Your task to perform on an android device: check battery use Image 0: 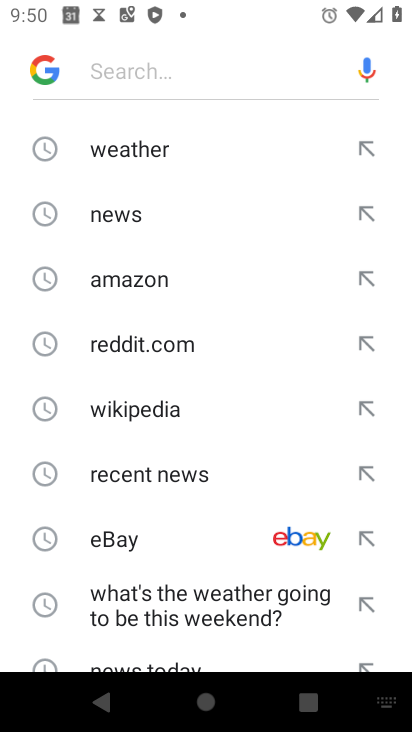
Step 0: press home button
Your task to perform on an android device: check battery use Image 1: 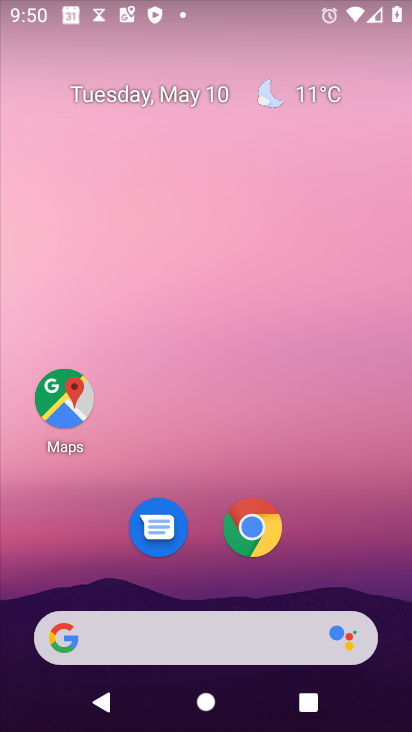
Step 1: drag from (361, 468) to (326, 20)
Your task to perform on an android device: check battery use Image 2: 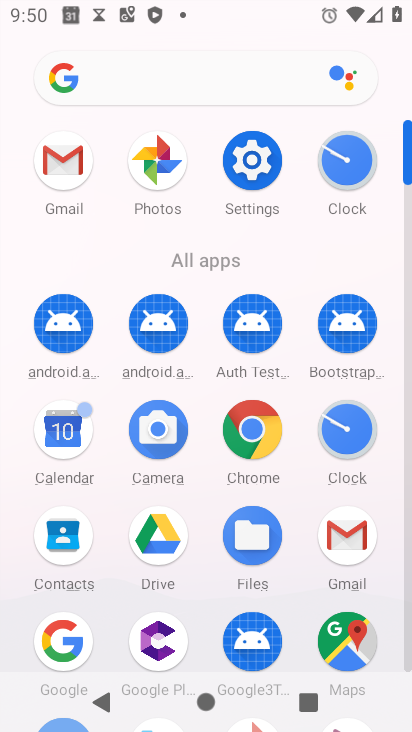
Step 2: click (257, 153)
Your task to perform on an android device: check battery use Image 3: 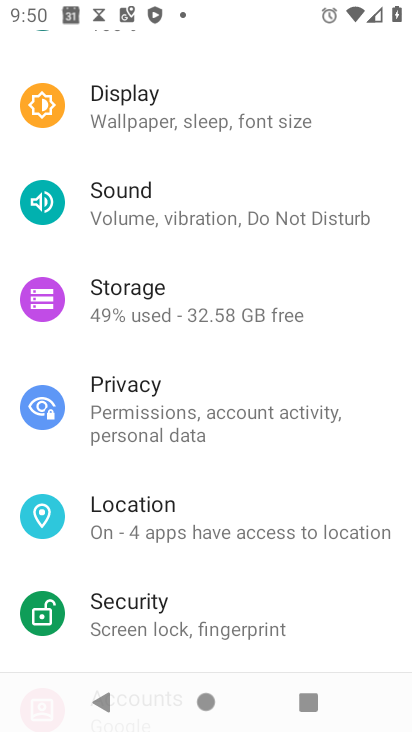
Step 3: drag from (201, 238) to (233, 583)
Your task to perform on an android device: check battery use Image 4: 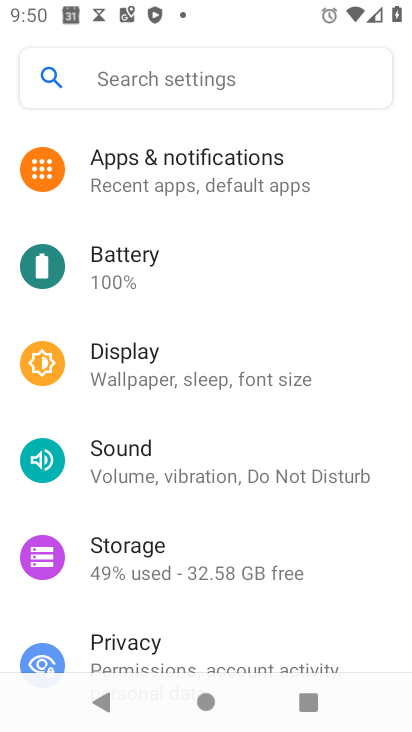
Step 4: click (160, 279)
Your task to perform on an android device: check battery use Image 5: 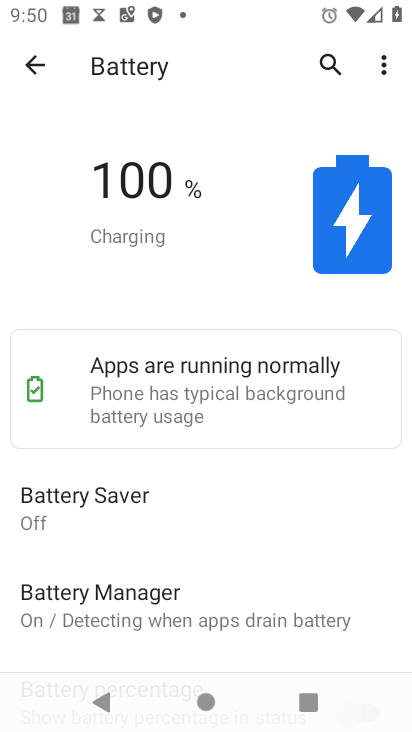
Step 5: click (391, 66)
Your task to perform on an android device: check battery use Image 6: 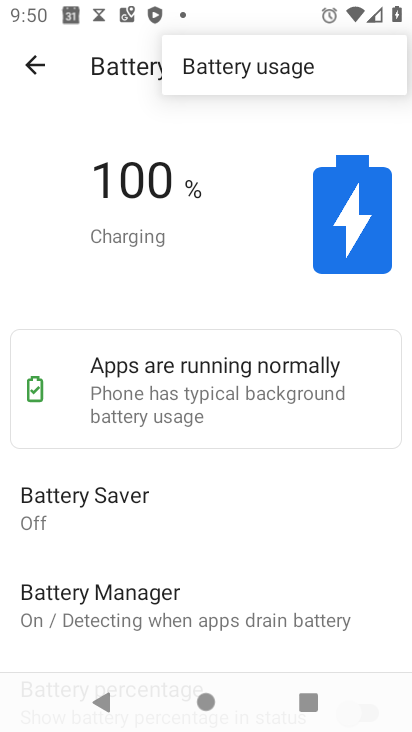
Step 6: click (335, 72)
Your task to perform on an android device: check battery use Image 7: 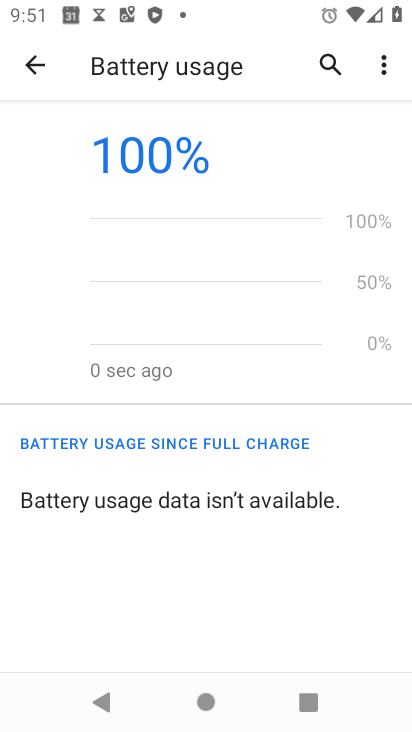
Step 7: task complete